Your task to perform on an android device: set the stopwatch Image 0: 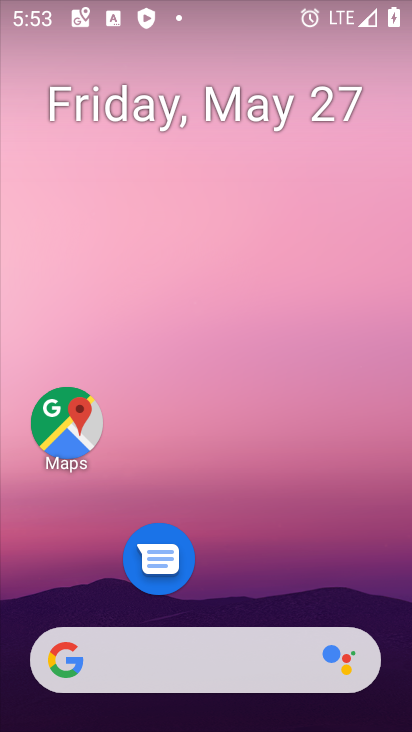
Step 0: drag from (411, 46) to (411, 8)
Your task to perform on an android device: set the stopwatch Image 1: 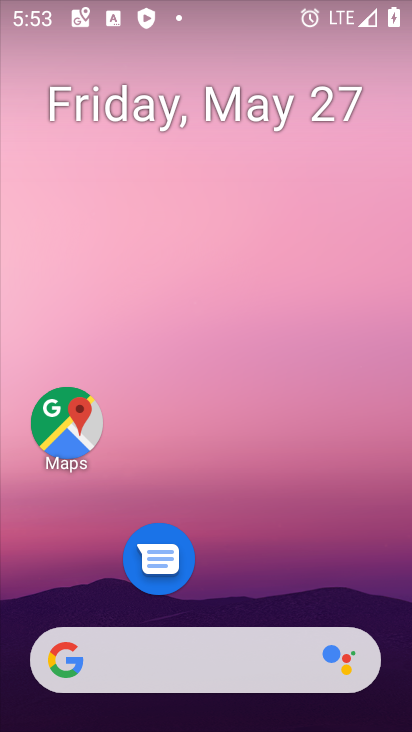
Step 1: drag from (290, 619) to (374, 38)
Your task to perform on an android device: set the stopwatch Image 2: 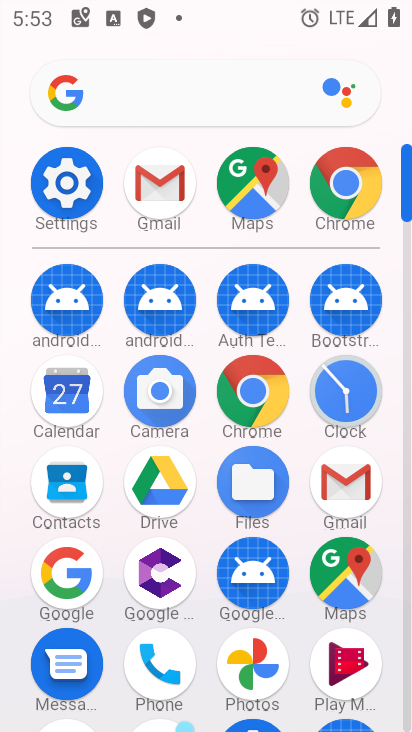
Step 2: click (341, 394)
Your task to perform on an android device: set the stopwatch Image 3: 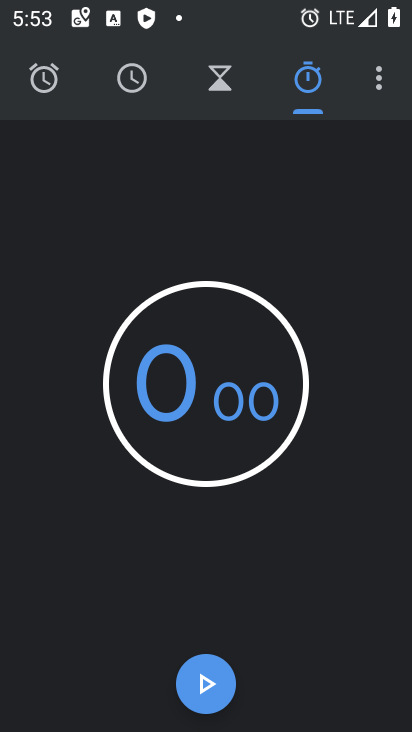
Step 3: task complete